Your task to perform on an android device: Open accessibility settings Image 0: 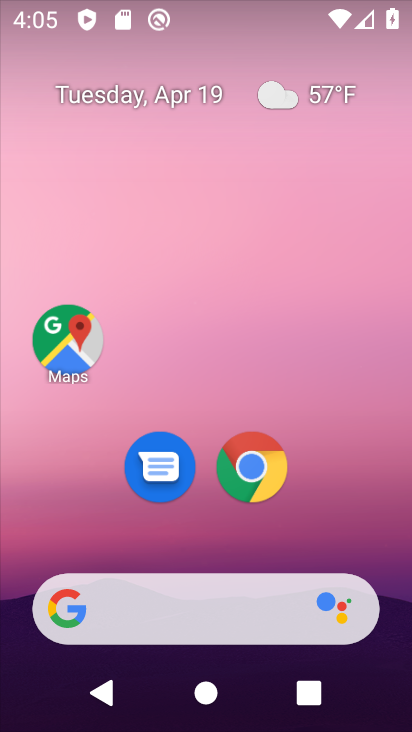
Step 0: drag from (247, 607) to (206, 319)
Your task to perform on an android device: Open accessibility settings Image 1: 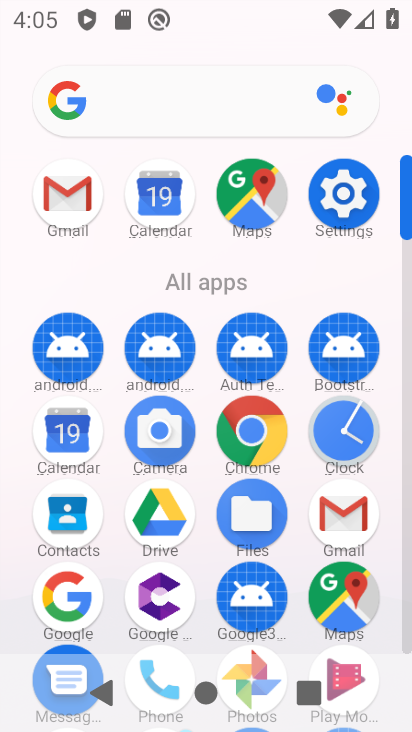
Step 1: click (360, 224)
Your task to perform on an android device: Open accessibility settings Image 2: 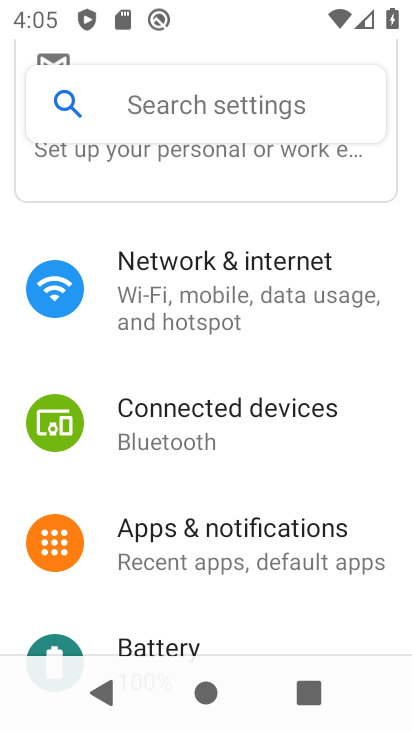
Step 2: drag from (298, 519) to (312, 313)
Your task to perform on an android device: Open accessibility settings Image 3: 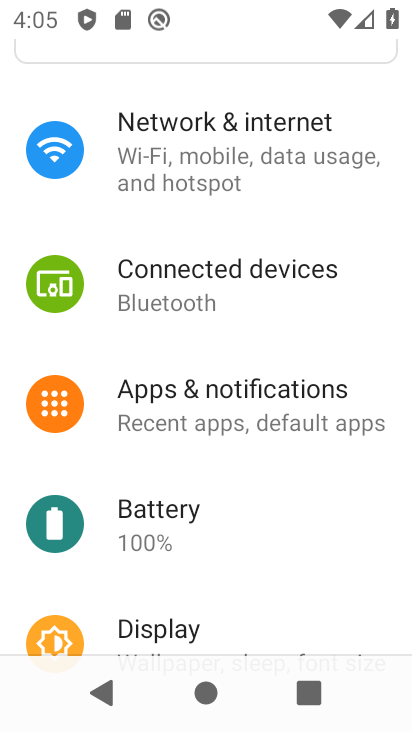
Step 3: drag from (286, 506) to (294, 203)
Your task to perform on an android device: Open accessibility settings Image 4: 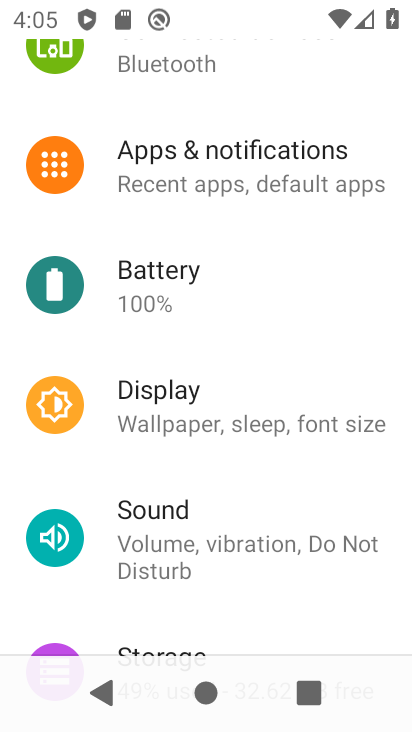
Step 4: drag from (219, 471) to (236, 171)
Your task to perform on an android device: Open accessibility settings Image 5: 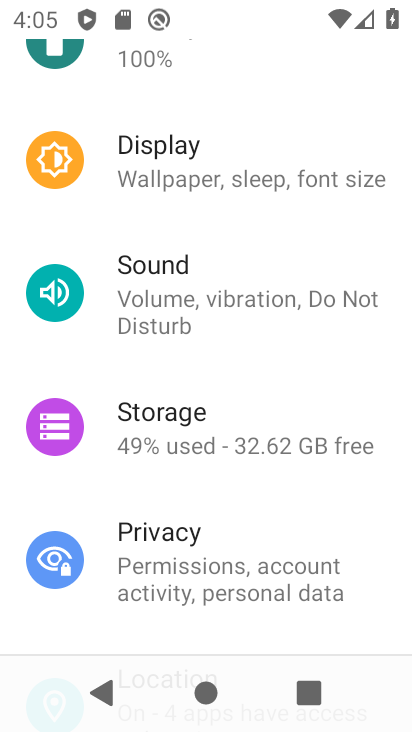
Step 5: drag from (203, 543) to (261, 248)
Your task to perform on an android device: Open accessibility settings Image 6: 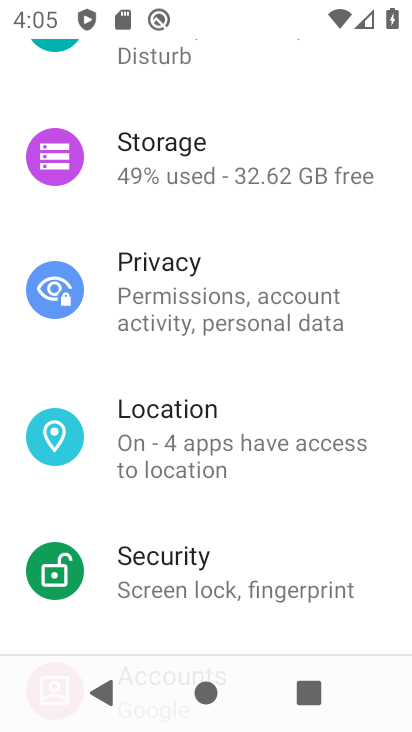
Step 6: drag from (217, 566) to (274, 323)
Your task to perform on an android device: Open accessibility settings Image 7: 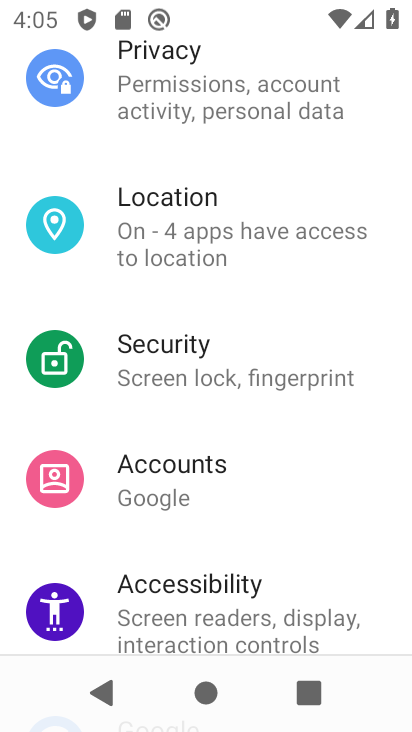
Step 7: click (214, 598)
Your task to perform on an android device: Open accessibility settings Image 8: 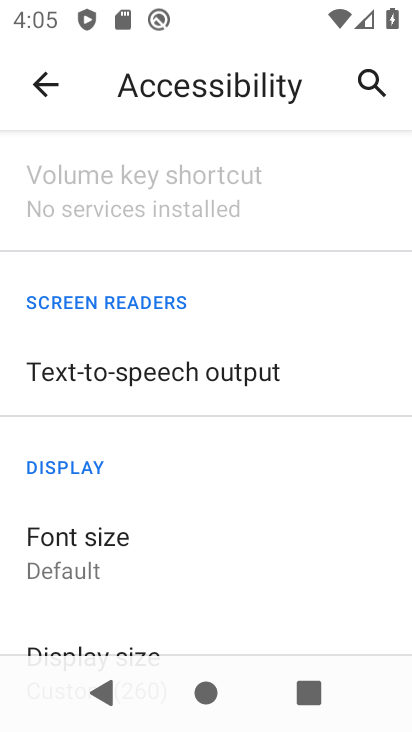
Step 8: task complete